Your task to perform on an android device: Go to Amazon Image 0: 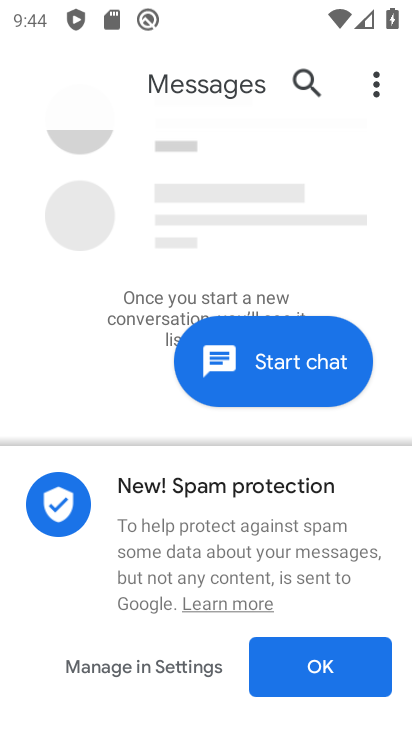
Step 0: press home button
Your task to perform on an android device: Go to Amazon Image 1: 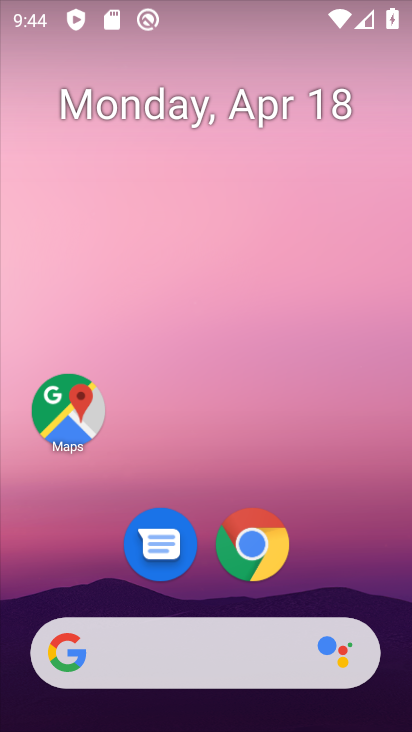
Step 1: drag from (339, 525) to (352, 85)
Your task to perform on an android device: Go to Amazon Image 2: 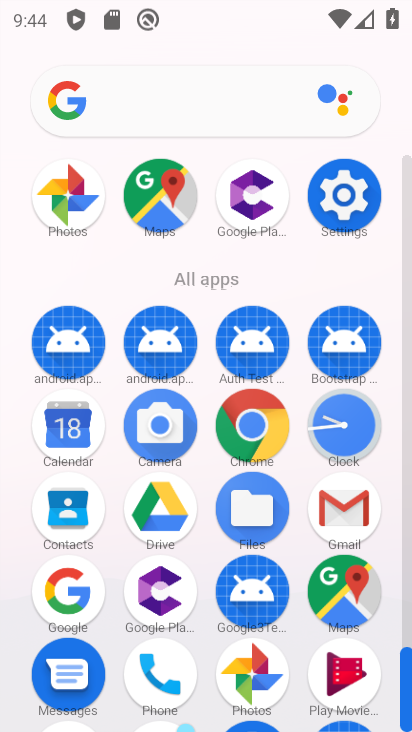
Step 2: click (246, 421)
Your task to perform on an android device: Go to Amazon Image 3: 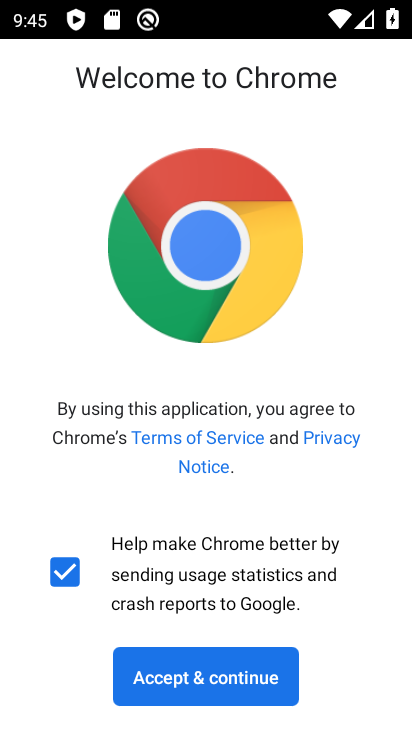
Step 3: click (241, 679)
Your task to perform on an android device: Go to Amazon Image 4: 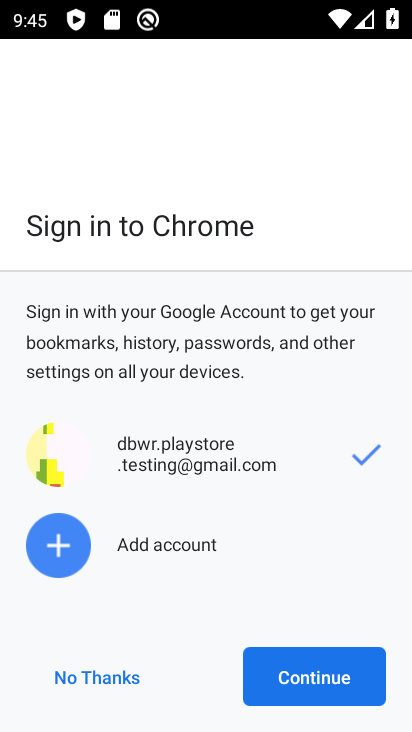
Step 4: click (312, 676)
Your task to perform on an android device: Go to Amazon Image 5: 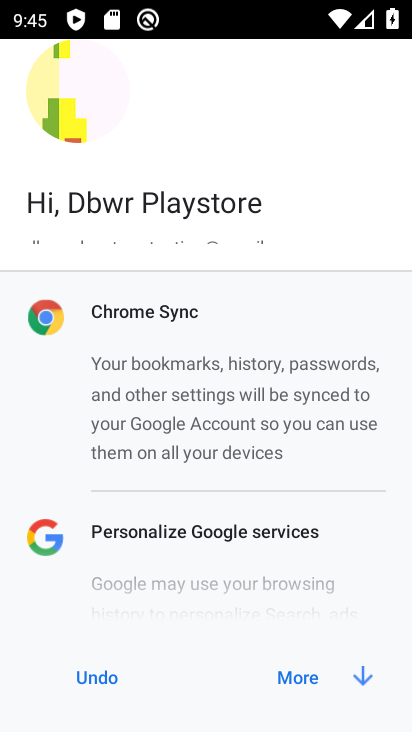
Step 5: click (304, 674)
Your task to perform on an android device: Go to Amazon Image 6: 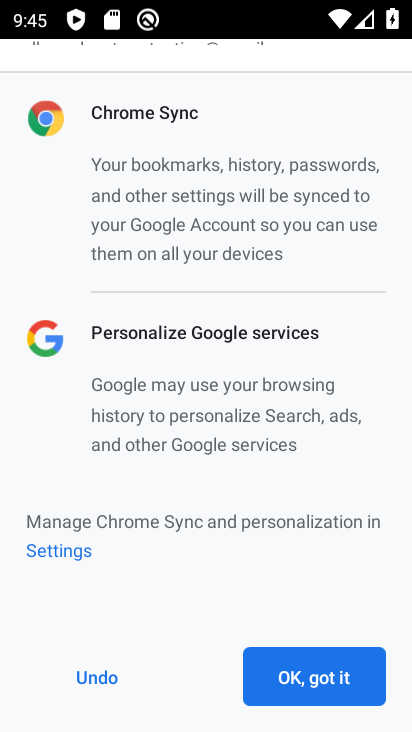
Step 6: click (363, 676)
Your task to perform on an android device: Go to Amazon Image 7: 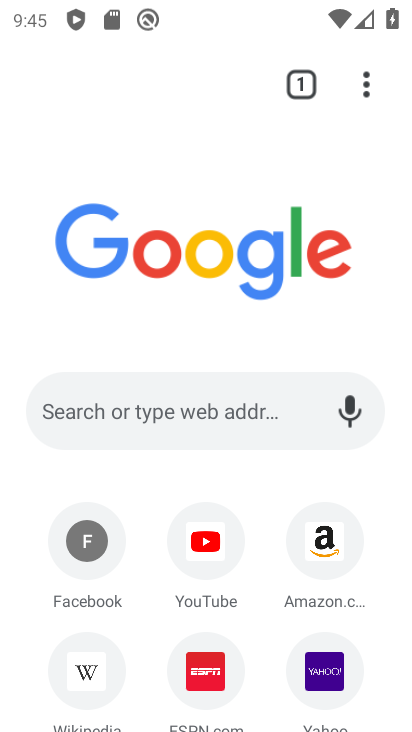
Step 7: click (330, 538)
Your task to perform on an android device: Go to Amazon Image 8: 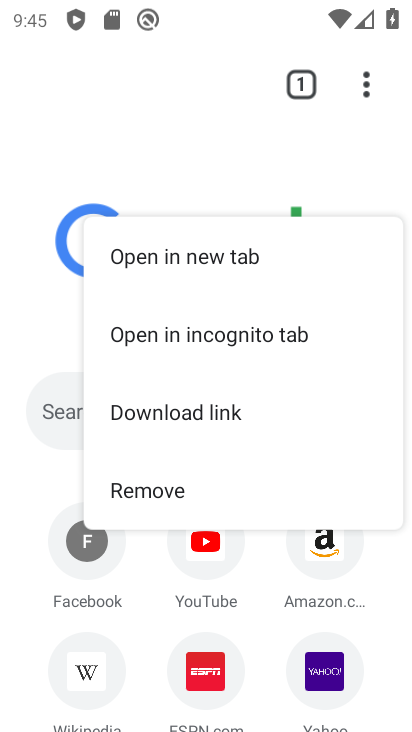
Step 8: click (331, 552)
Your task to perform on an android device: Go to Amazon Image 9: 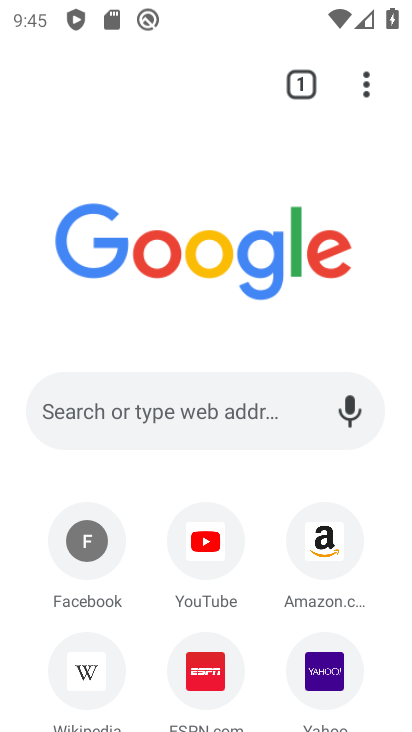
Step 9: click (328, 541)
Your task to perform on an android device: Go to Amazon Image 10: 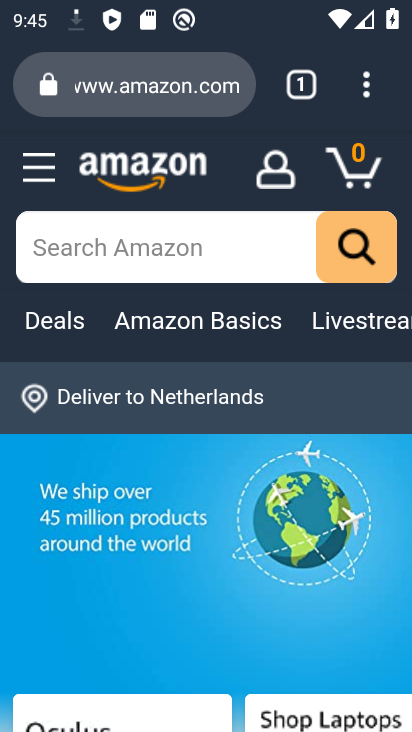
Step 10: task complete